Your task to perform on an android device: change notifications settings Image 0: 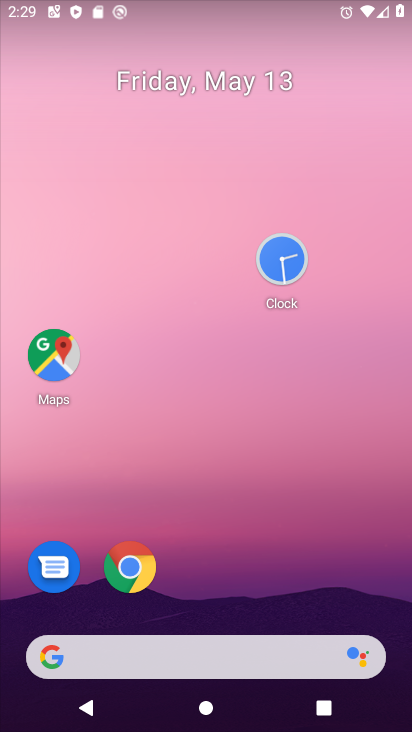
Step 0: drag from (207, 576) to (308, 0)
Your task to perform on an android device: change notifications settings Image 1: 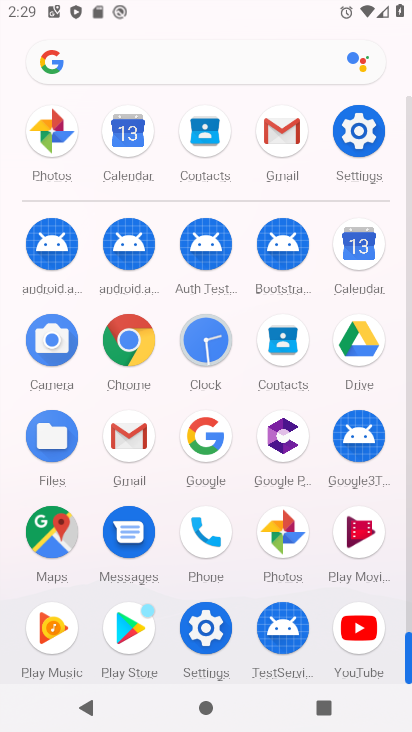
Step 1: click (376, 278)
Your task to perform on an android device: change notifications settings Image 2: 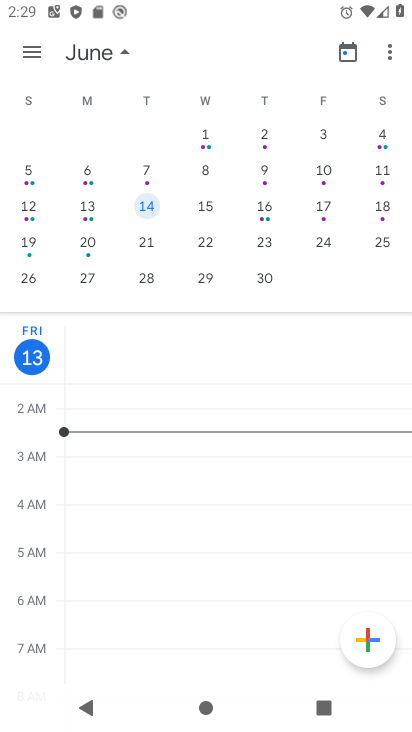
Step 2: click (371, 119)
Your task to perform on an android device: change notifications settings Image 3: 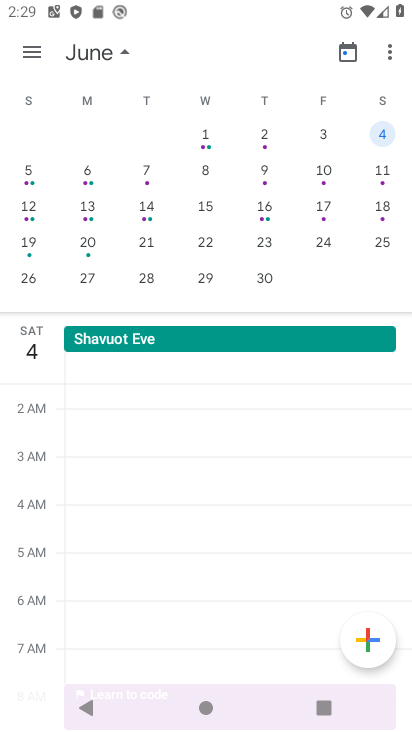
Step 3: press home button
Your task to perform on an android device: change notifications settings Image 4: 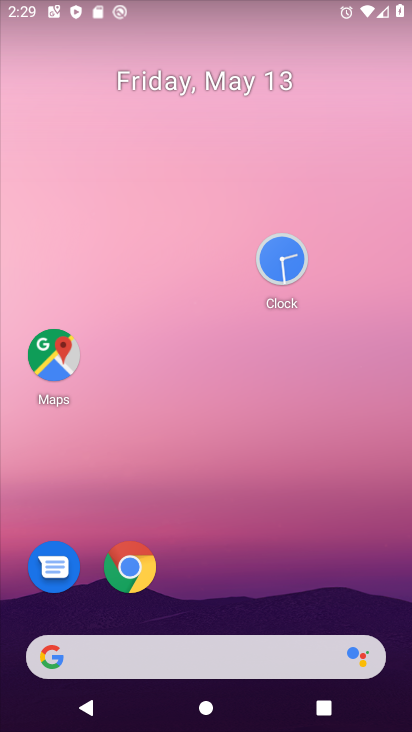
Step 4: drag from (210, 601) to (242, 7)
Your task to perform on an android device: change notifications settings Image 5: 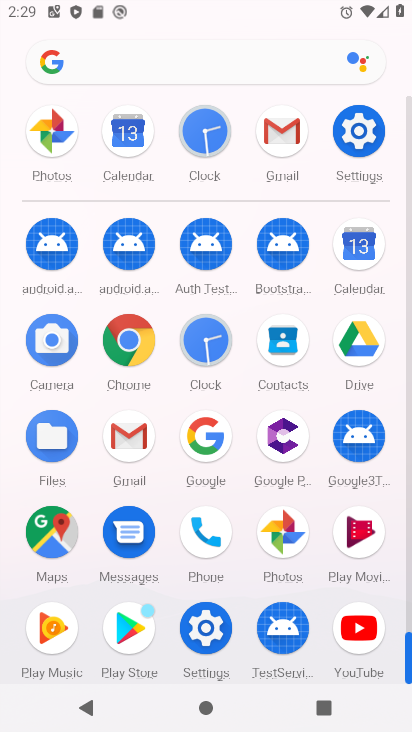
Step 5: click (355, 154)
Your task to perform on an android device: change notifications settings Image 6: 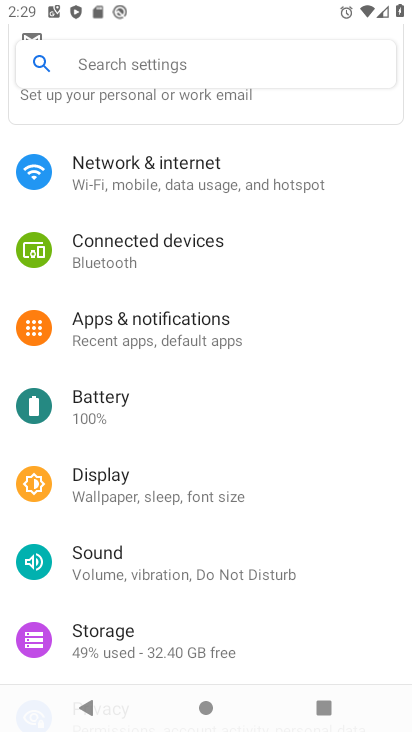
Step 6: click (180, 168)
Your task to perform on an android device: change notifications settings Image 7: 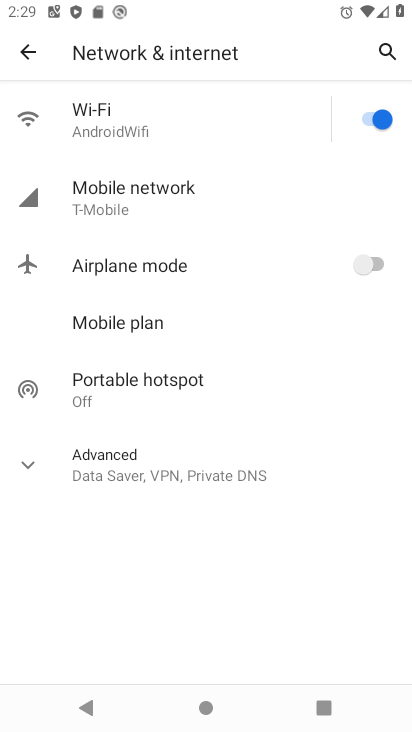
Step 7: click (35, 60)
Your task to perform on an android device: change notifications settings Image 8: 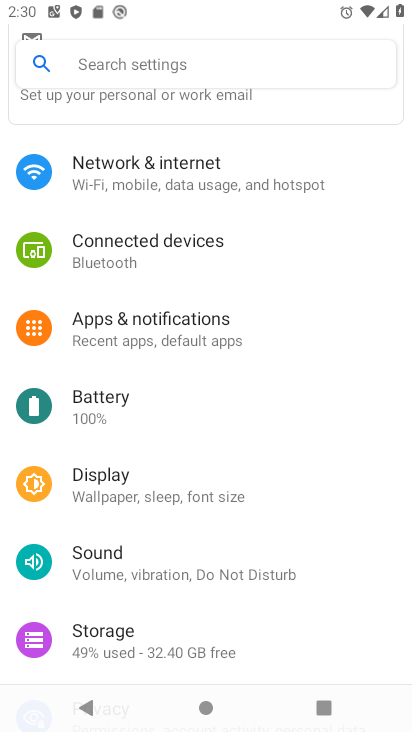
Step 8: click (198, 352)
Your task to perform on an android device: change notifications settings Image 9: 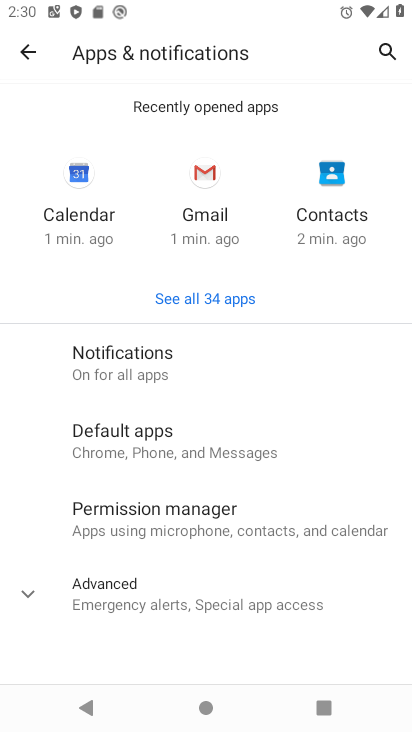
Step 9: click (248, 346)
Your task to perform on an android device: change notifications settings Image 10: 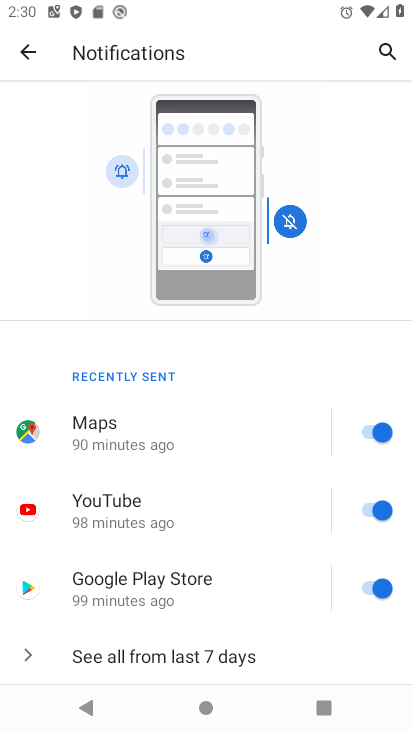
Step 10: task complete